Your task to perform on an android device: What's the weather going to be tomorrow? Image 0: 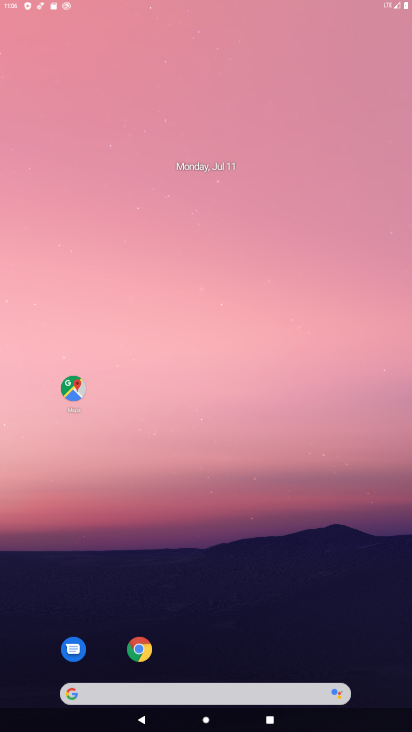
Step 0: drag from (312, 573) to (243, 168)
Your task to perform on an android device: What's the weather going to be tomorrow? Image 1: 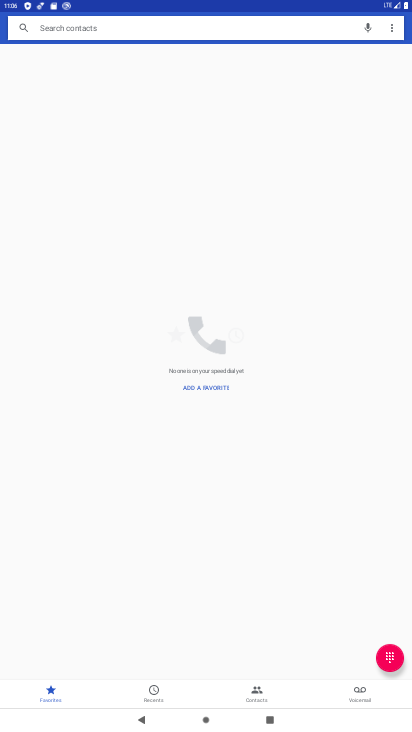
Step 1: press home button
Your task to perform on an android device: What's the weather going to be tomorrow? Image 2: 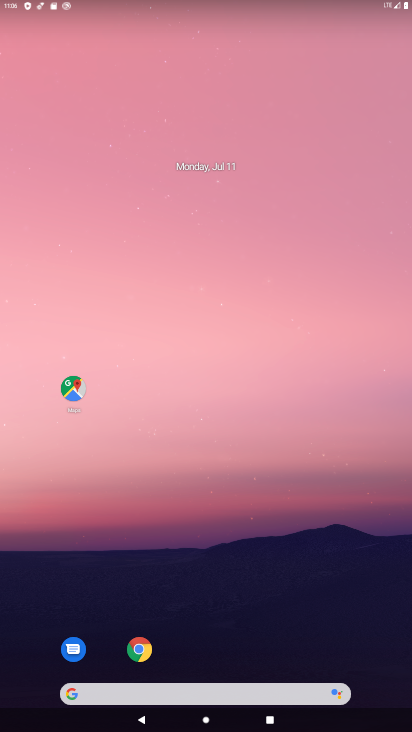
Step 2: drag from (302, 553) to (223, 75)
Your task to perform on an android device: What's the weather going to be tomorrow? Image 3: 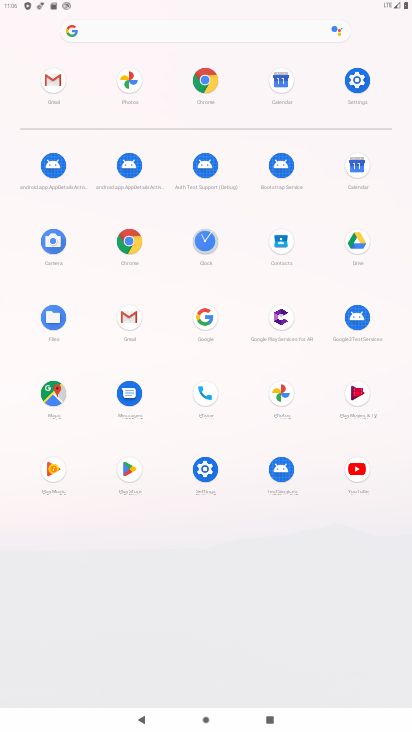
Step 3: click (128, 237)
Your task to perform on an android device: What's the weather going to be tomorrow? Image 4: 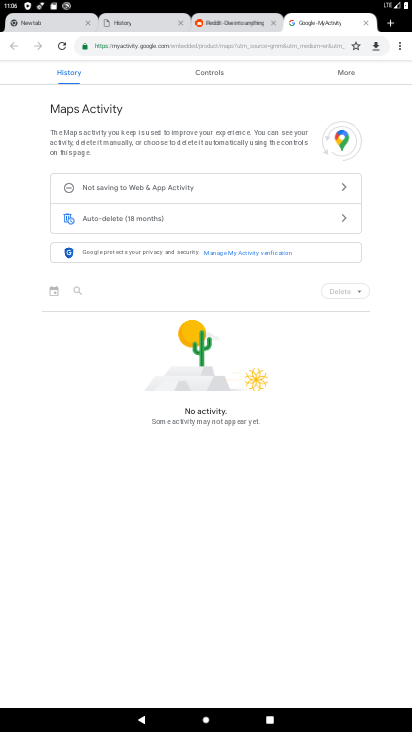
Step 4: click (185, 41)
Your task to perform on an android device: What's the weather going to be tomorrow? Image 5: 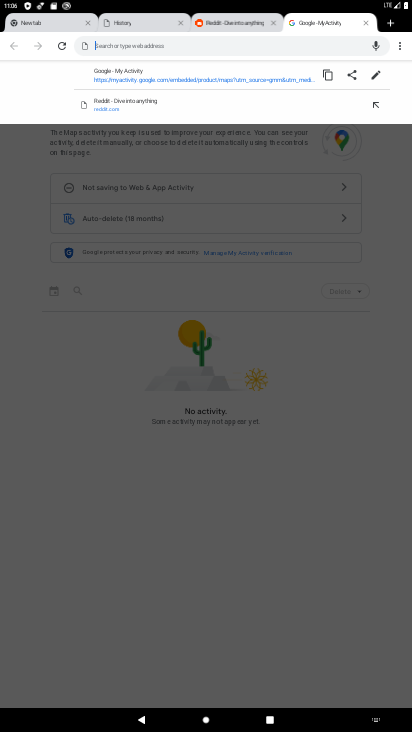
Step 5: type "weather"
Your task to perform on an android device: What's the weather going to be tomorrow? Image 6: 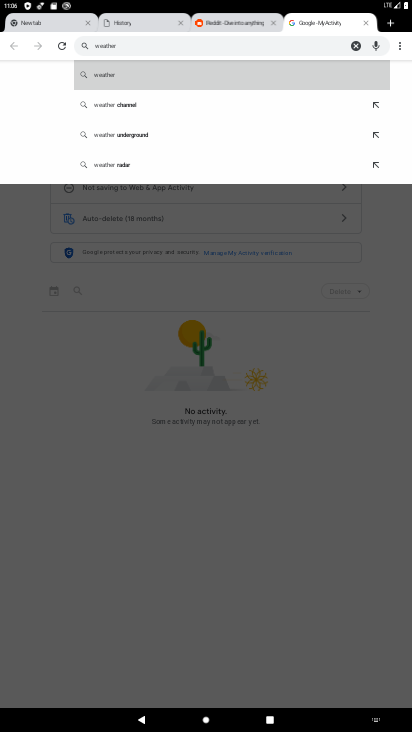
Step 6: click (116, 74)
Your task to perform on an android device: What's the weather going to be tomorrow? Image 7: 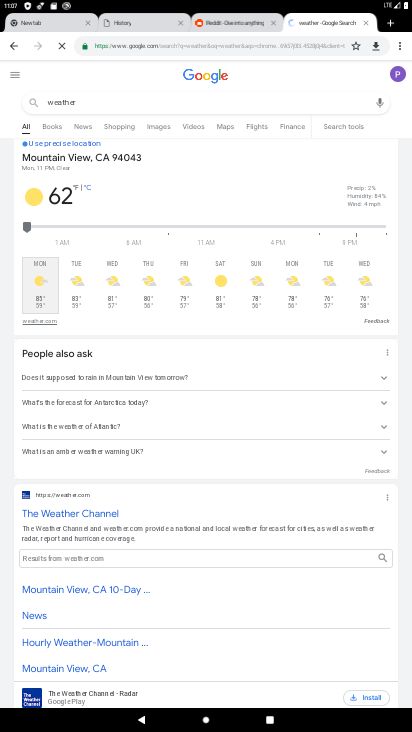
Step 7: click (78, 286)
Your task to perform on an android device: What's the weather going to be tomorrow? Image 8: 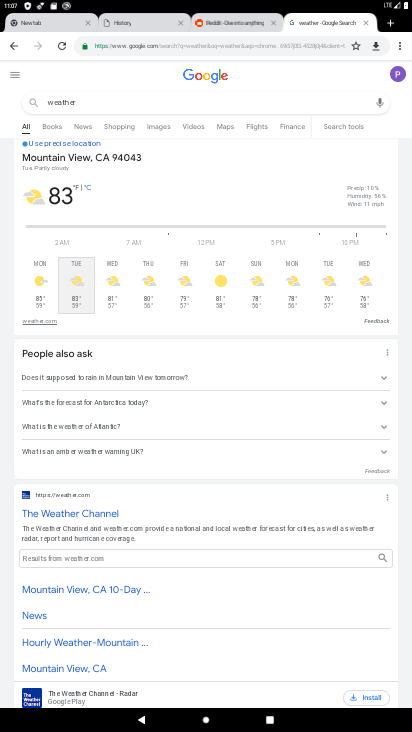
Step 8: task complete